Your task to perform on an android device: Open Reddit.com Image 0: 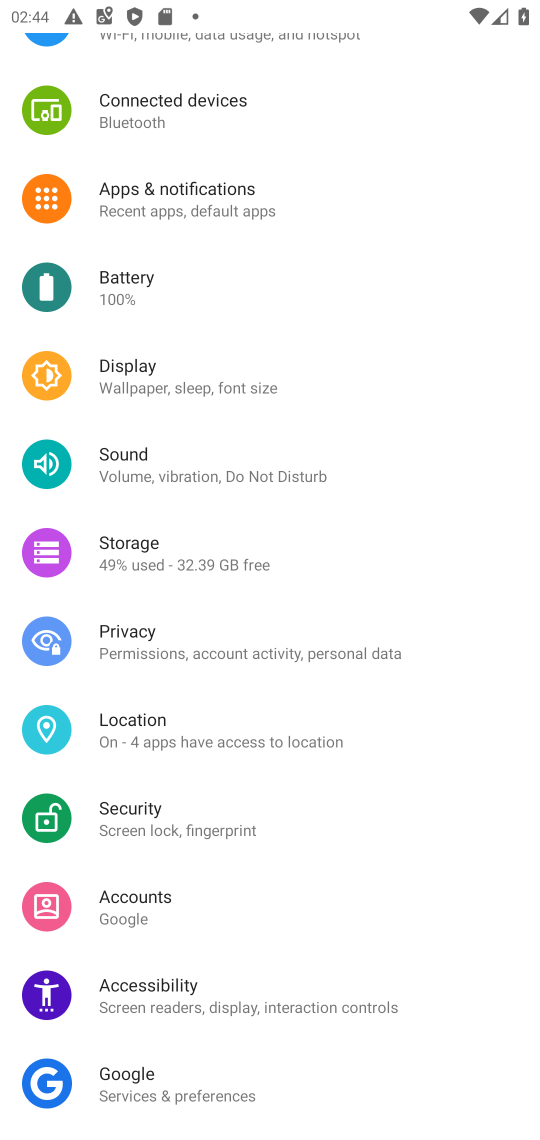
Step 0: press home button
Your task to perform on an android device: Open Reddit.com Image 1: 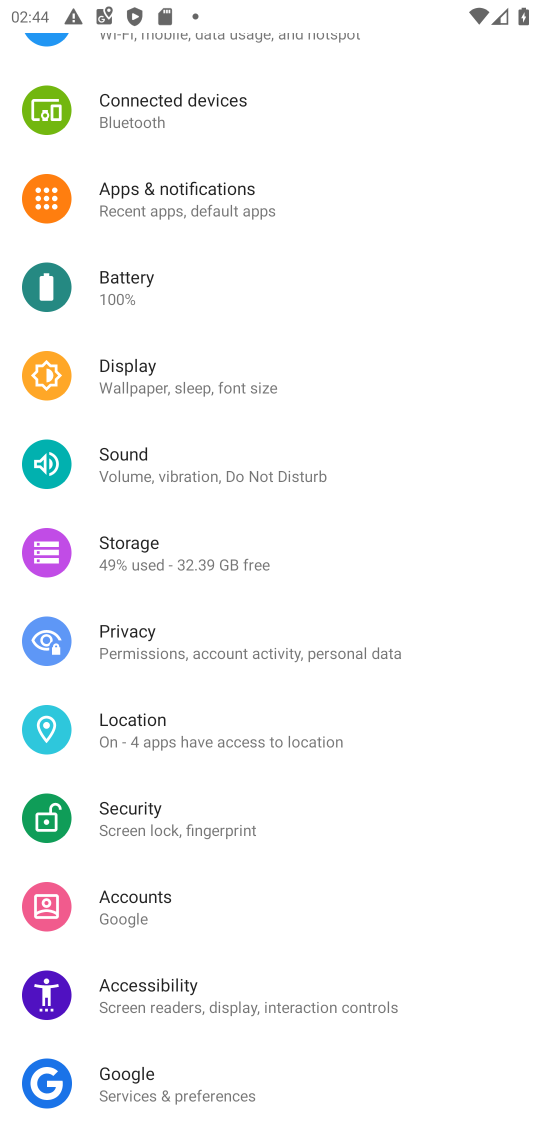
Step 1: press home button
Your task to perform on an android device: Open Reddit.com Image 2: 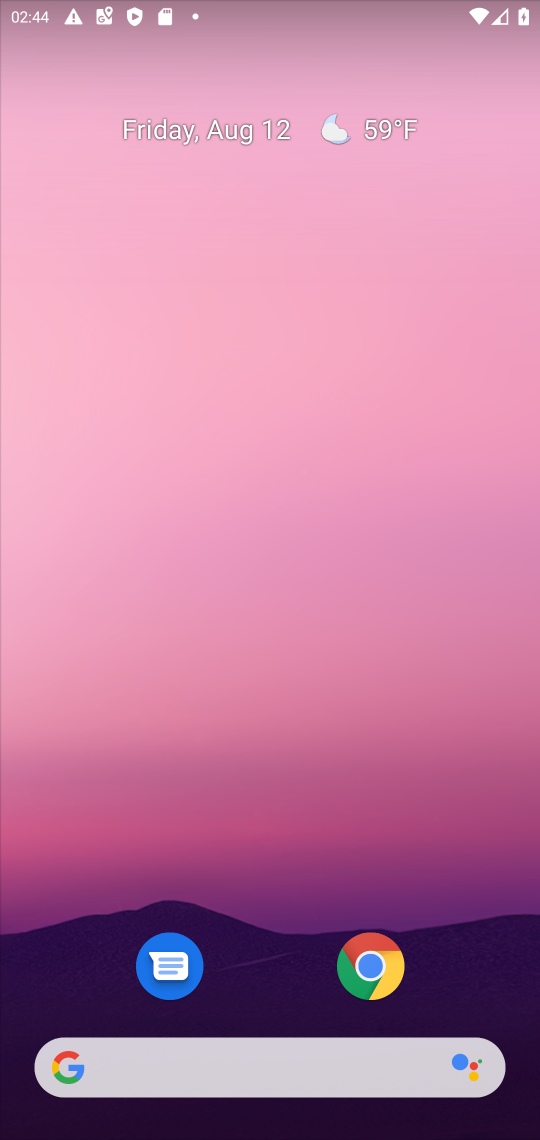
Step 2: drag from (284, 446) to (276, 5)
Your task to perform on an android device: Open Reddit.com Image 3: 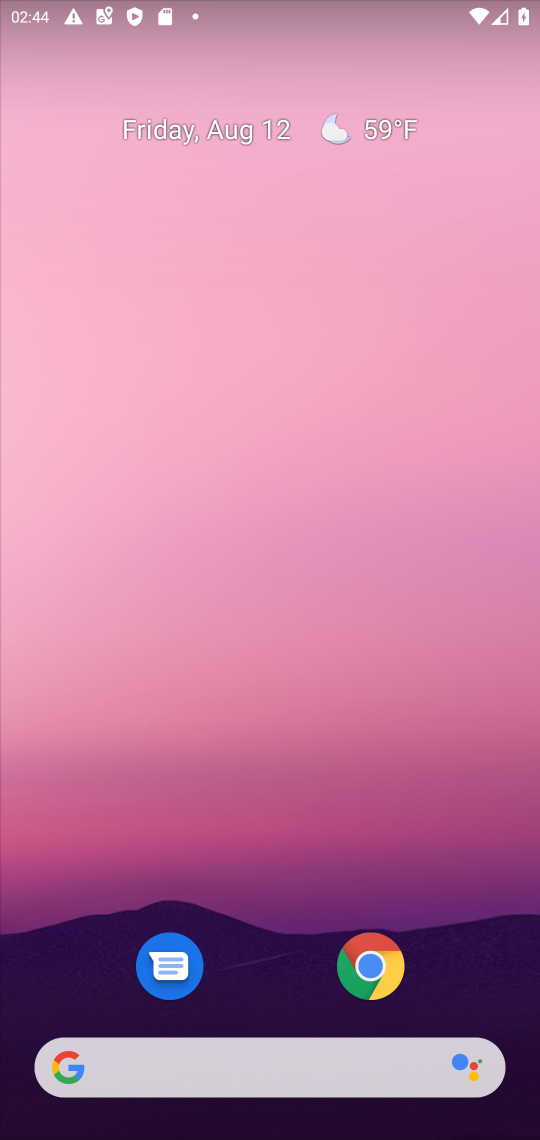
Step 3: drag from (262, 960) to (366, 130)
Your task to perform on an android device: Open Reddit.com Image 4: 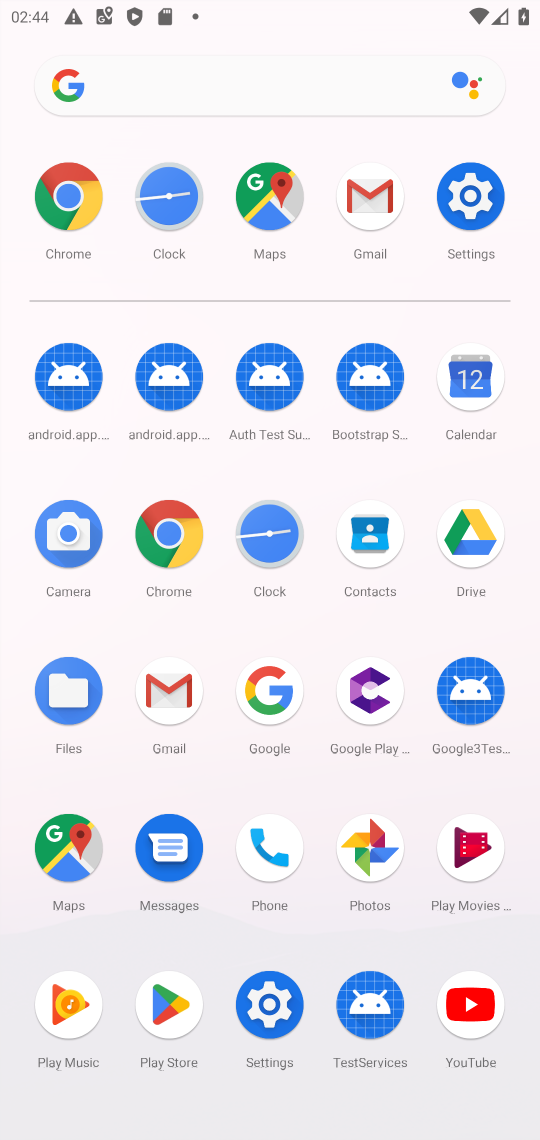
Step 4: click (161, 529)
Your task to perform on an android device: Open Reddit.com Image 5: 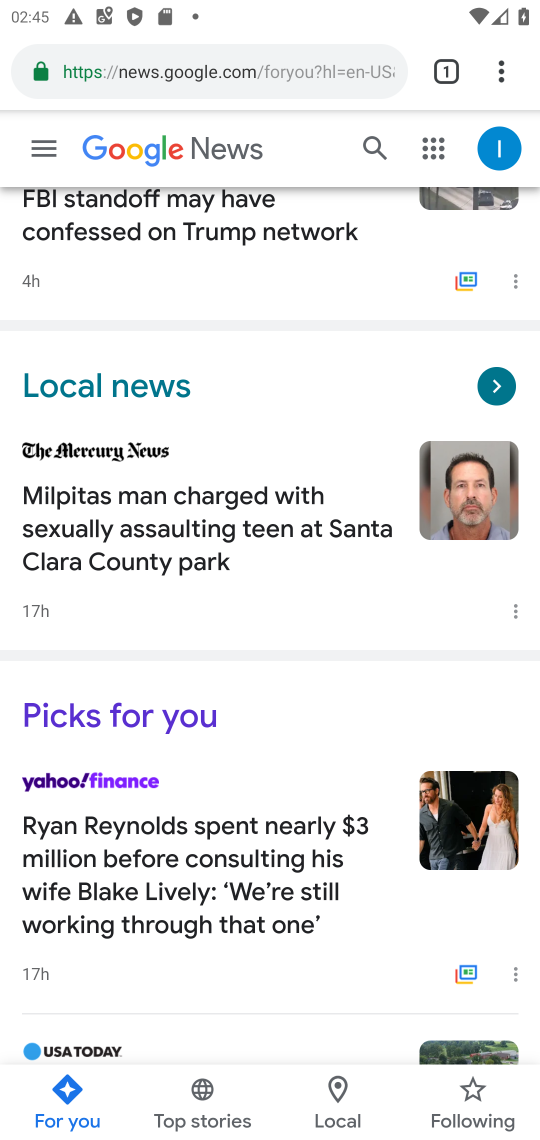
Step 5: click (233, 63)
Your task to perform on an android device: Open Reddit.com Image 6: 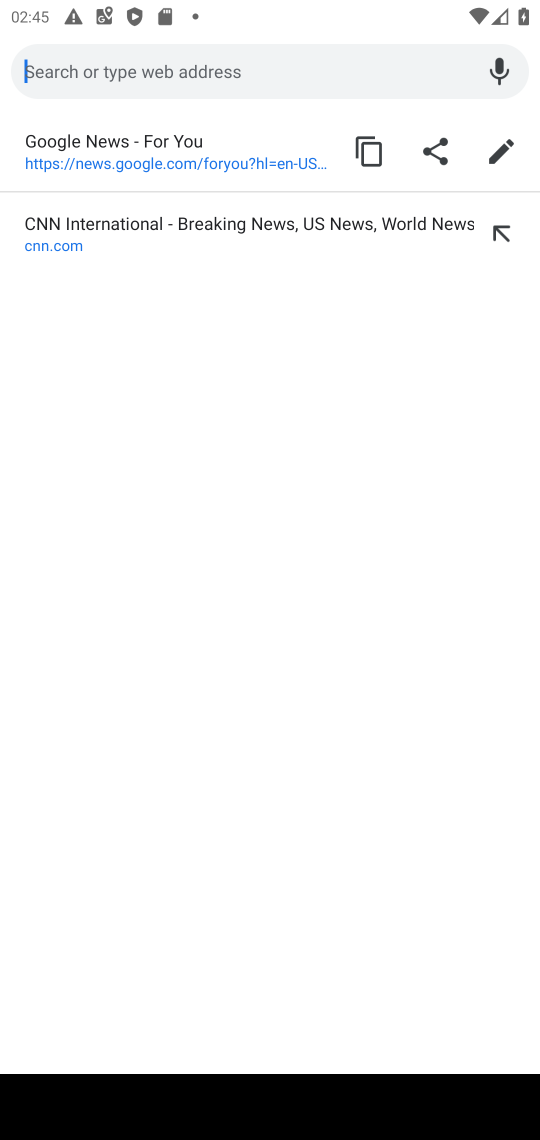
Step 6: type "reddit.com"
Your task to perform on an android device: Open Reddit.com Image 7: 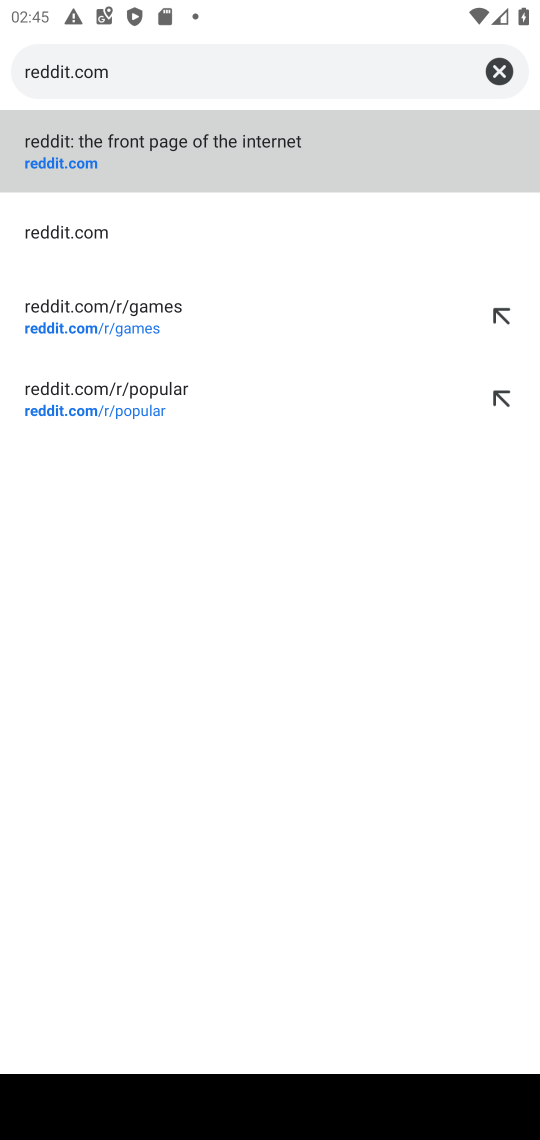
Step 7: click (41, 163)
Your task to perform on an android device: Open Reddit.com Image 8: 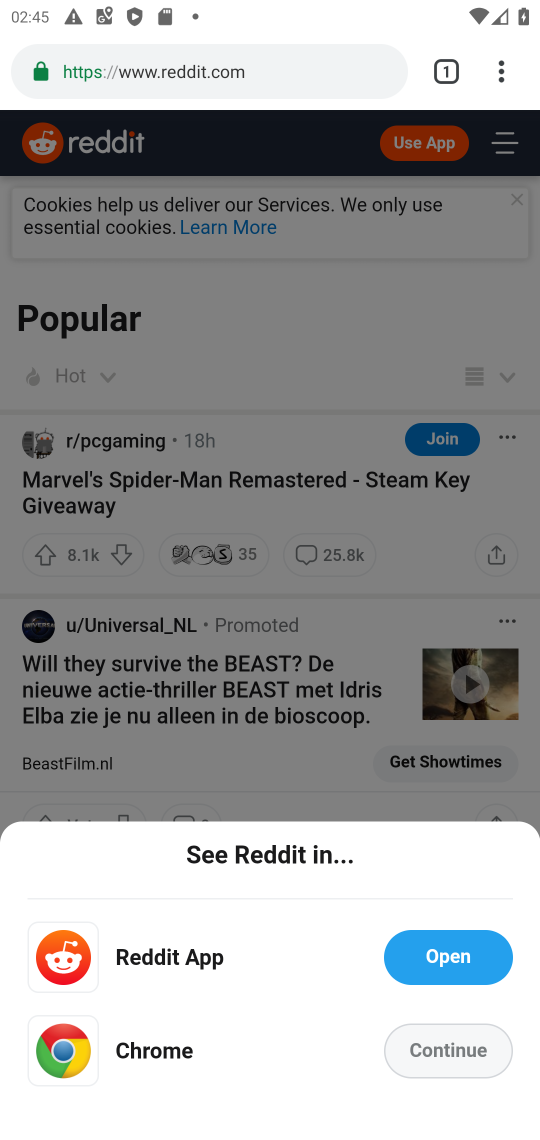
Step 8: task complete